Your task to perform on an android device: Go to display settings Image 0: 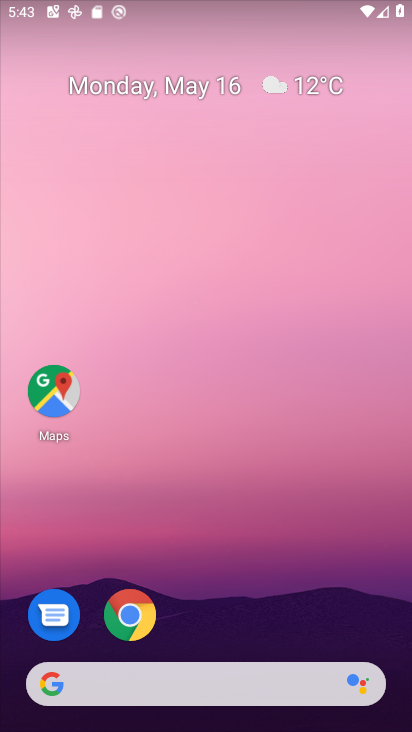
Step 0: drag from (221, 639) to (286, 153)
Your task to perform on an android device: Go to display settings Image 1: 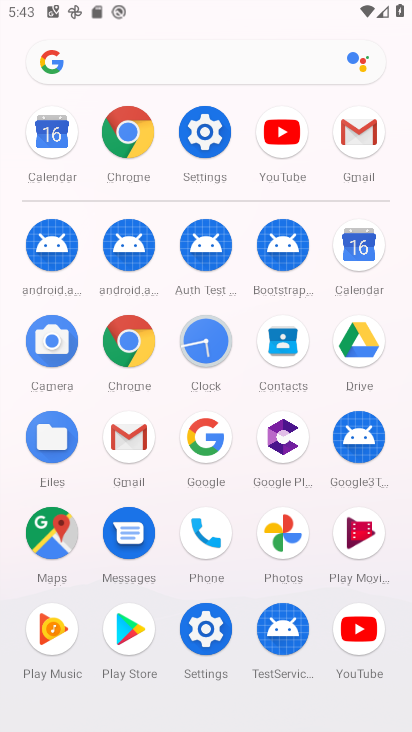
Step 1: click (207, 128)
Your task to perform on an android device: Go to display settings Image 2: 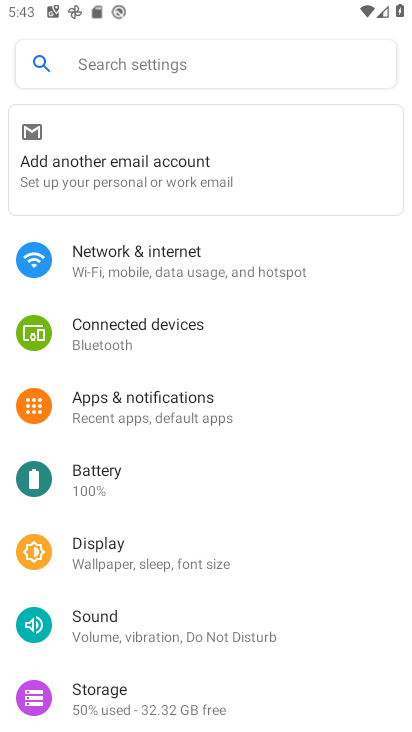
Step 2: click (102, 555)
Your task to perform on an android device: Go to display settings Image 3: 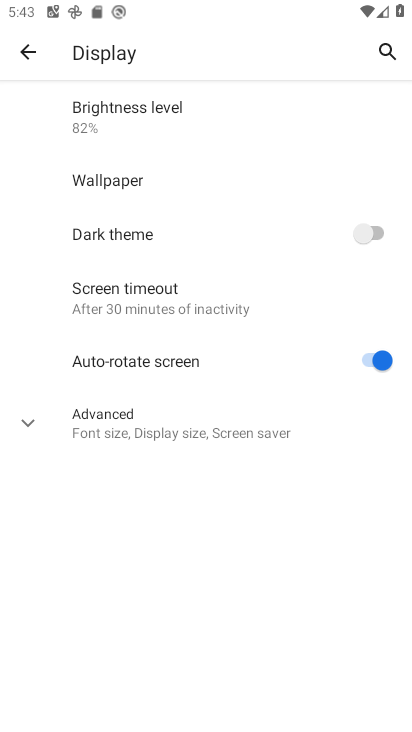
Step 3: task complete